Your task to perform on an android device: change notification settings in the gmail app Image 0: 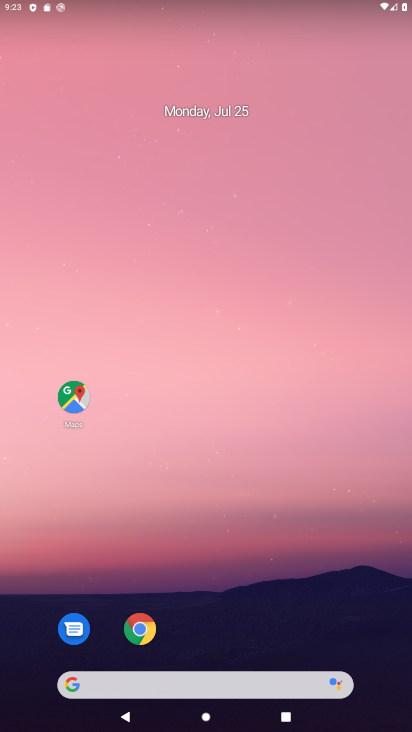
Step 0: drag from (259, 603) to (221, 91)
Your task to perform on an android device: change notification settings in the gmail app Image 1: 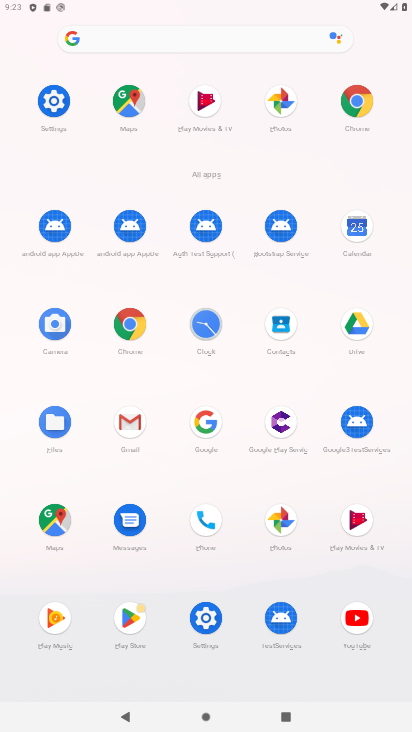
Step 1: click (115, 427)
Your task to perform on an android device: change notification settings in the gmail app Image 2: 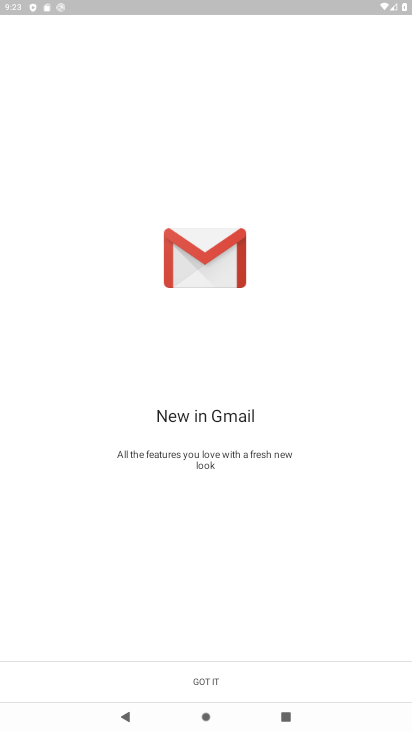
Step 2: click (282, 690)
Your task to perform on an android device: change notification settings in the gmail app Image 3: 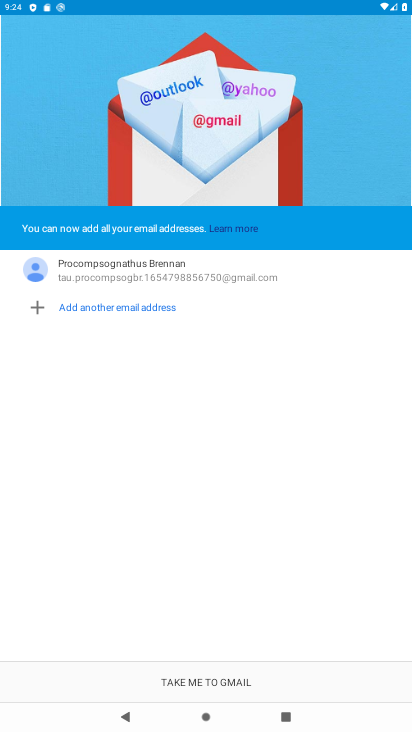
Step 3: click (264, 680)
Your task to perform on an android device: change notification settings in the gmail app Image 4: 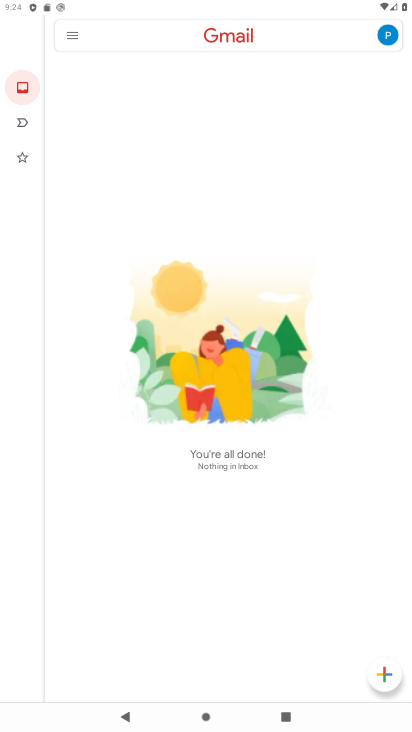
Step 4: click (41, 35)
Your task to perform on an android device: change notification settings in the gmail app Image 5: 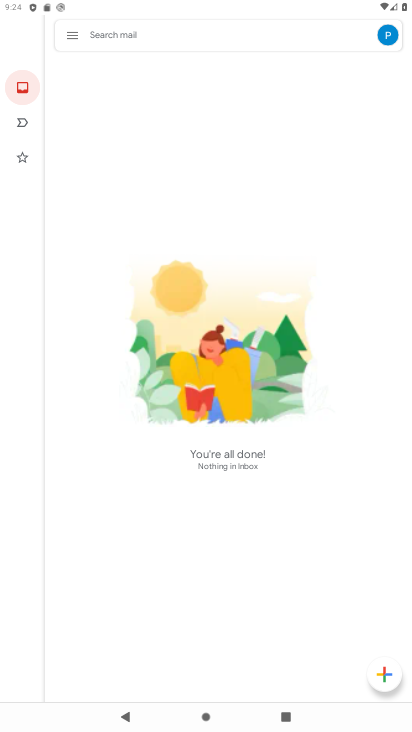
Step 5: click (71, 30)
Your task to perform on an android device: change notification settings in the gmail app Image 6: 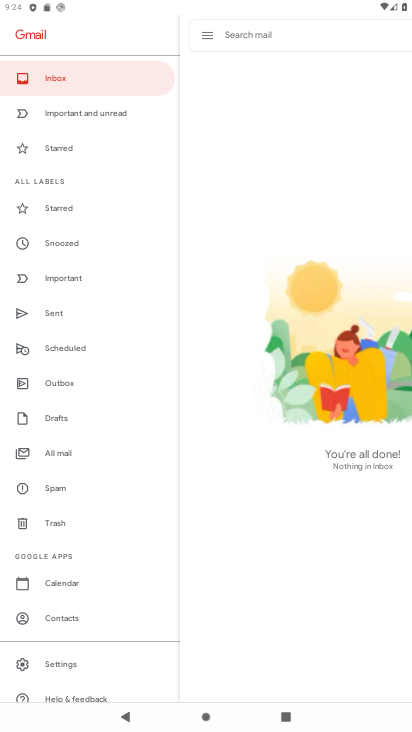
Step 6: click (65, 665)
Your task to perform on an android device: change notification settings in the gmail app Image 7: 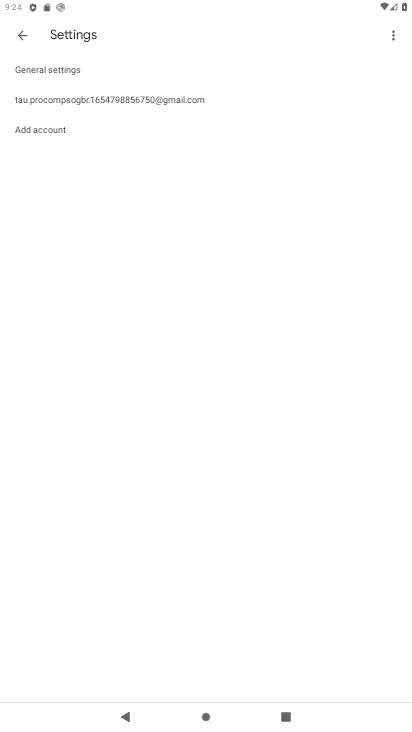
Step 7: click (157, 113)
Your task to perform on an android device: change notification settings in the gmail app Image 8: 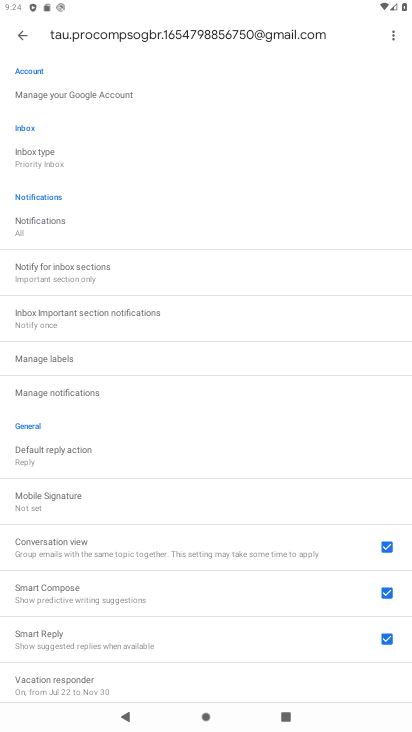
Step 8: click (46, 387)
Your task to perform on an android device: change notification settings in the gmail app Image 9: 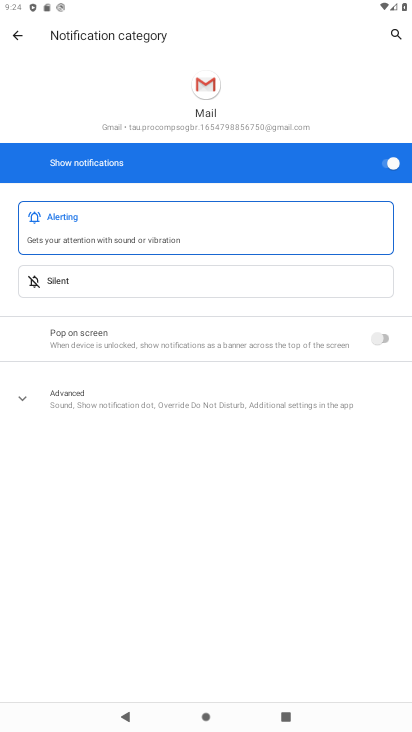
Step 9: click (391, 163)
Your task to perform on an android device: change notification settings in the gmail app Image 10: 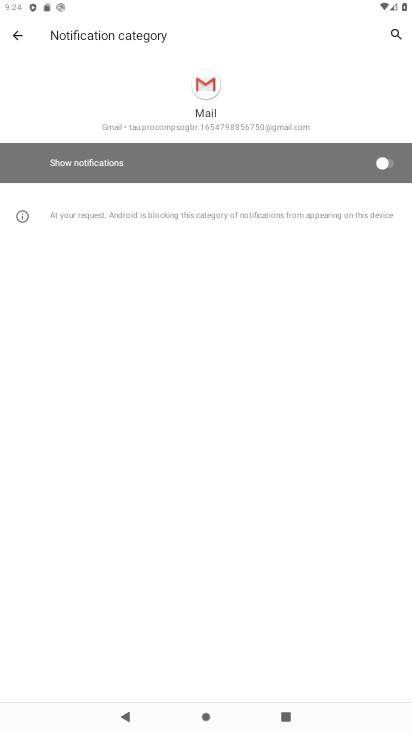
Step 10: task complete